Your task to perform on an android device: move a message to another label in the gmail app Image 0: 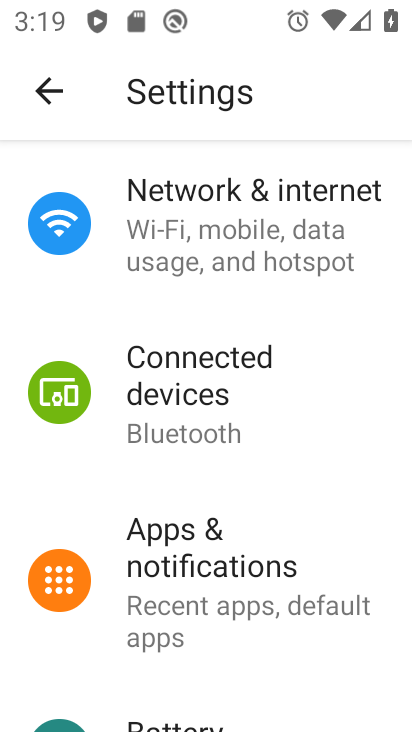
Step 0: press home button
Your task to perform on an android device: move a message to another label in the gmail app Image 1: 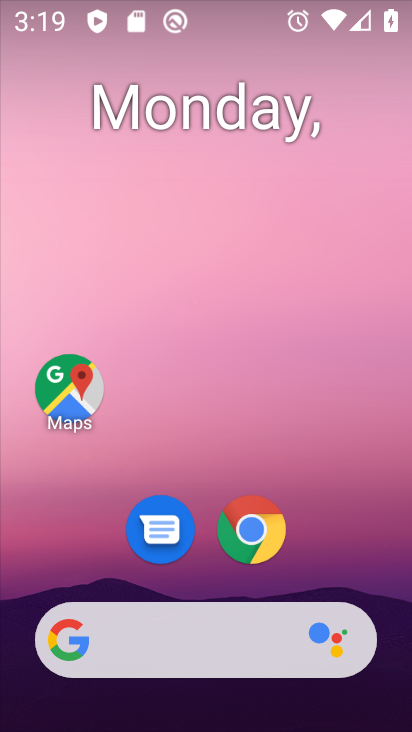
Step 1: drag from (196, 573) to (292, 17)
Your task to perform on an android device: move a message to another label in the gmail app Image 2: 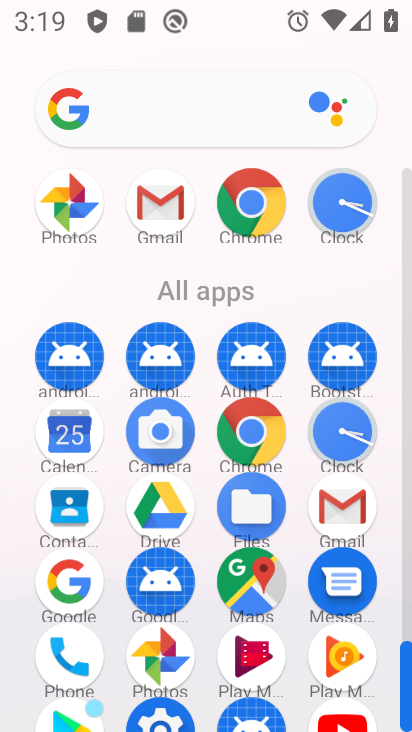
Step 2: click (333, 505)
Your task to perform on an android device: move a message to another label in the gmail app Image 3: 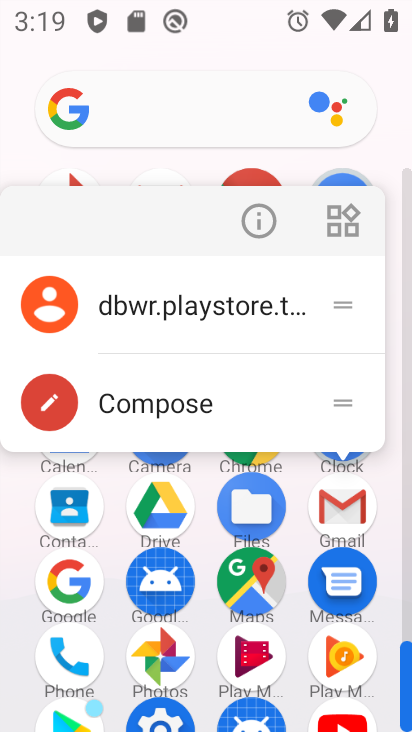
Step 3: click (319, 522)
Your task to perform on an android device: move a message to another label in the gmail app Image 4: 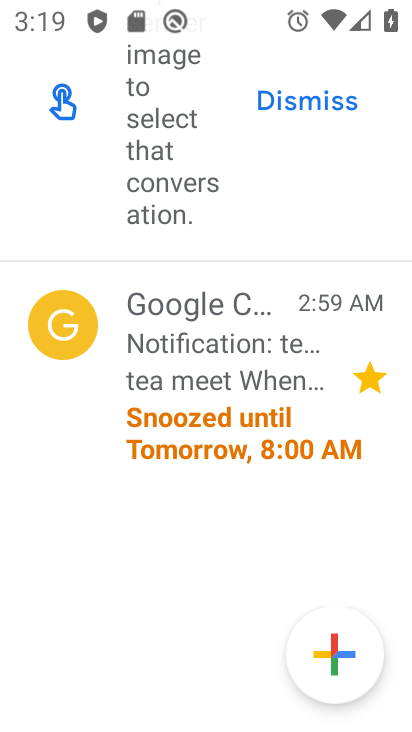
Step 4: click (59, 348)
Your task to perform on an android device: move a message to another label in the gmail app Image 5: 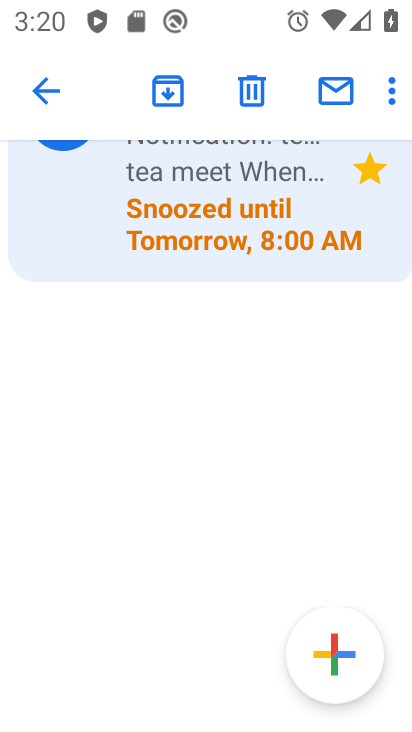
Step 5: click (389, 99)
Your task to perform on an android device: move a message to another label in the gmail app Image 6: 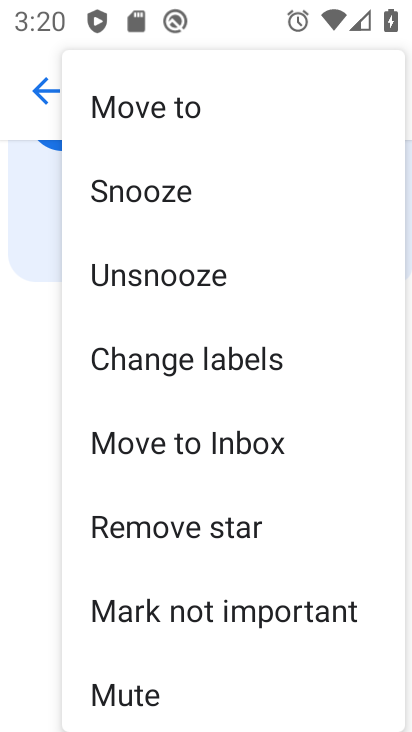
Step 6: click (192, 278)
Your task to perform on an android device: move a message to another label in the gmail app Image 7: 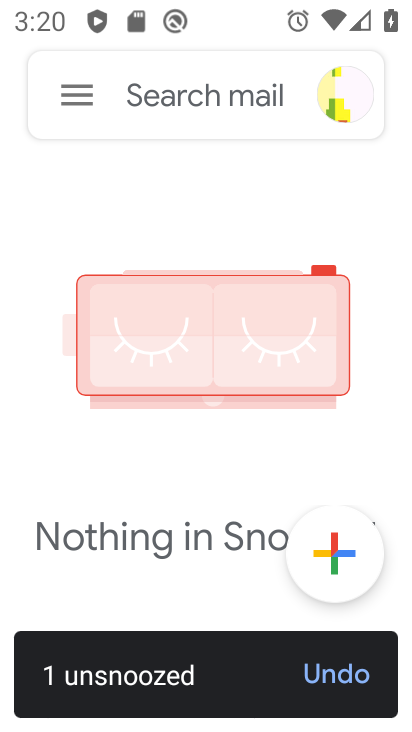
Step 7: task complete